Your task to perform on an android device: open app "Microsoft Authenticator" (install if not already installed), go to login, and select forgot password Image 0: 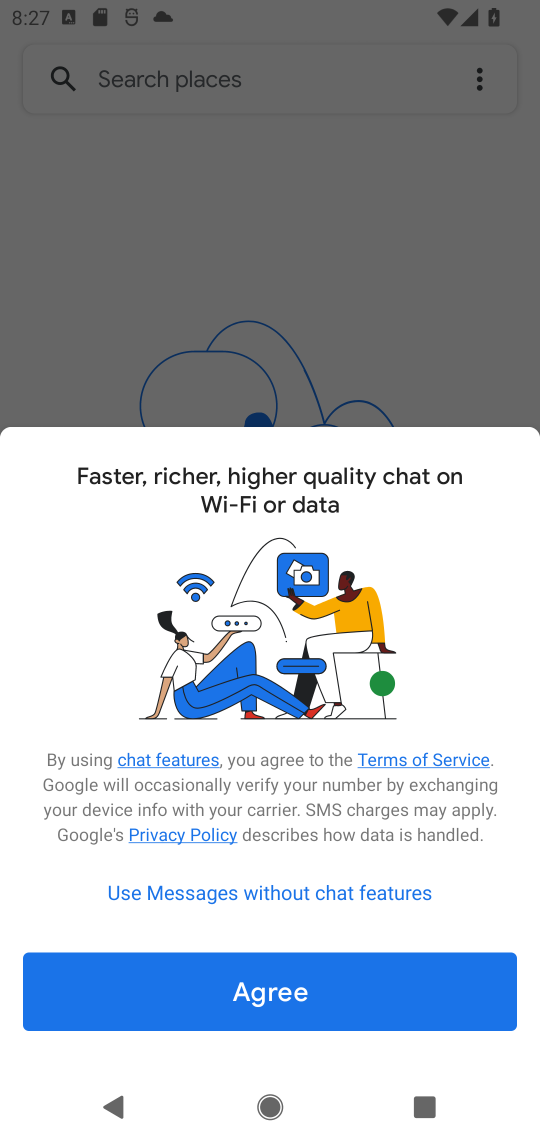
Step 0: press home button
Your task to perform on an android device: open app "Microsoft Authenticator" (install if not already installed), go to login, and select forgot password Image 1: 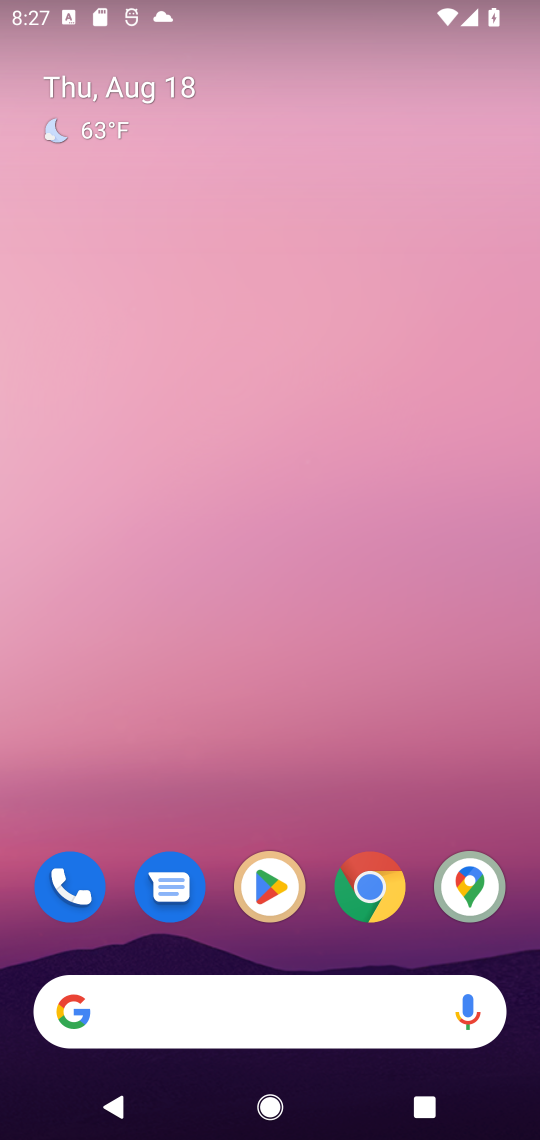
Step 1: click (265, 898)
Your task to perform on an android device: open app "Microsoft Authenticator" (install if not already installed), go to login, and select forgot password Image 2: 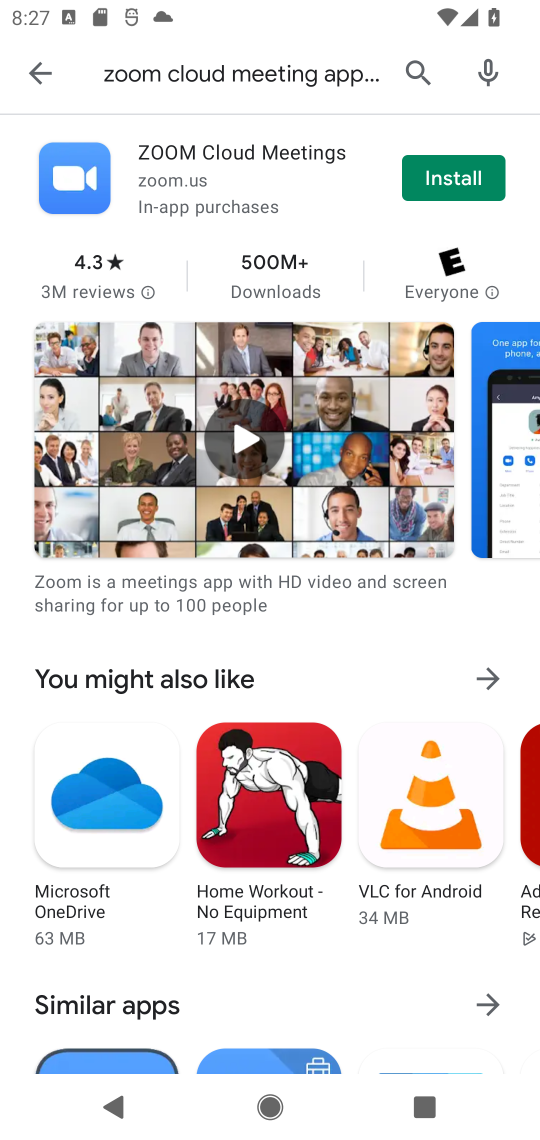
Step 2: click (413, 74)
Your task to perform on an android device: open app "Microsoft Authenticator" (install if not already installed), go to login, and select forgot password Image 3: 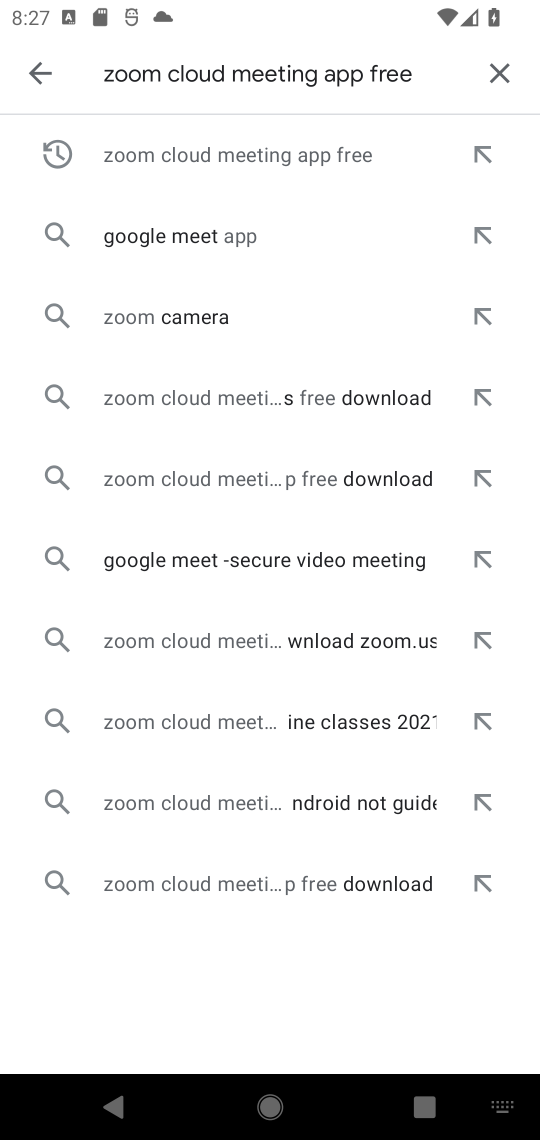
Step 3: click (508, 67)
Your task to perform on an android device: open app "Microsoft Authenticator" (install if not already installed), go to login, and select forgot password Image 4: 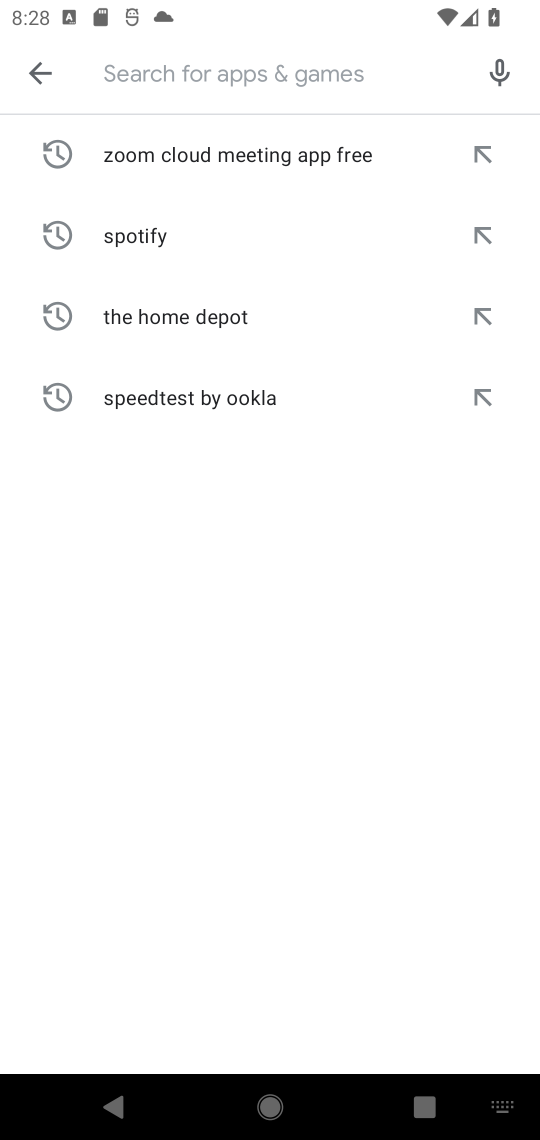
Step 4: type "Microsoft Authenticator"
Your task to perform on an android device: open app "Microsoft Authenticator" (install if not already installed), go to login, and select forgot password Image 5: 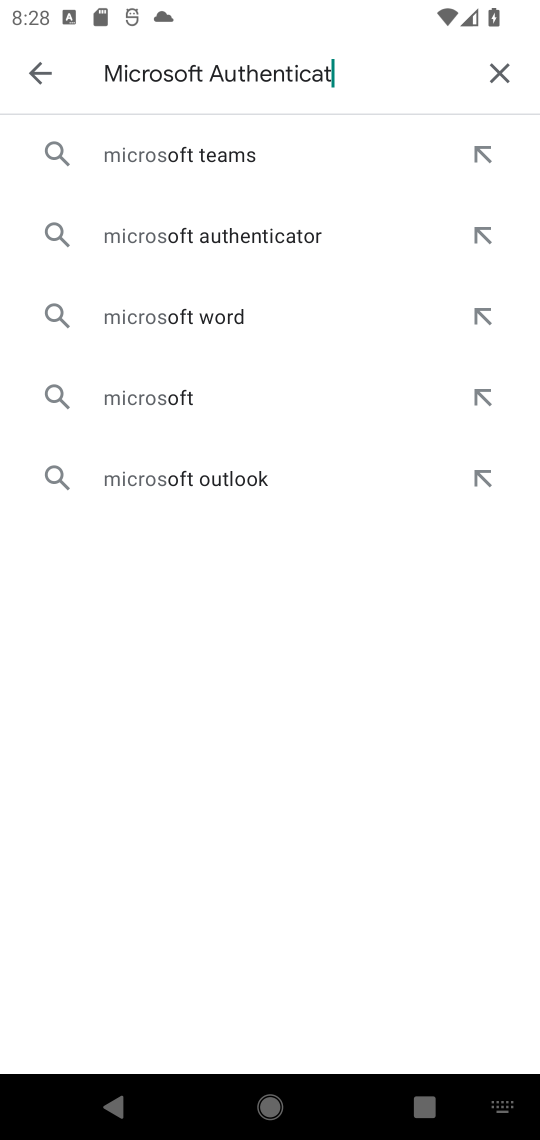
Step 5: type ""
Your task to perform on an android device: open app "Microsoft Authenticator" (install if not already installed), go to login, and select forgot password Image 6: 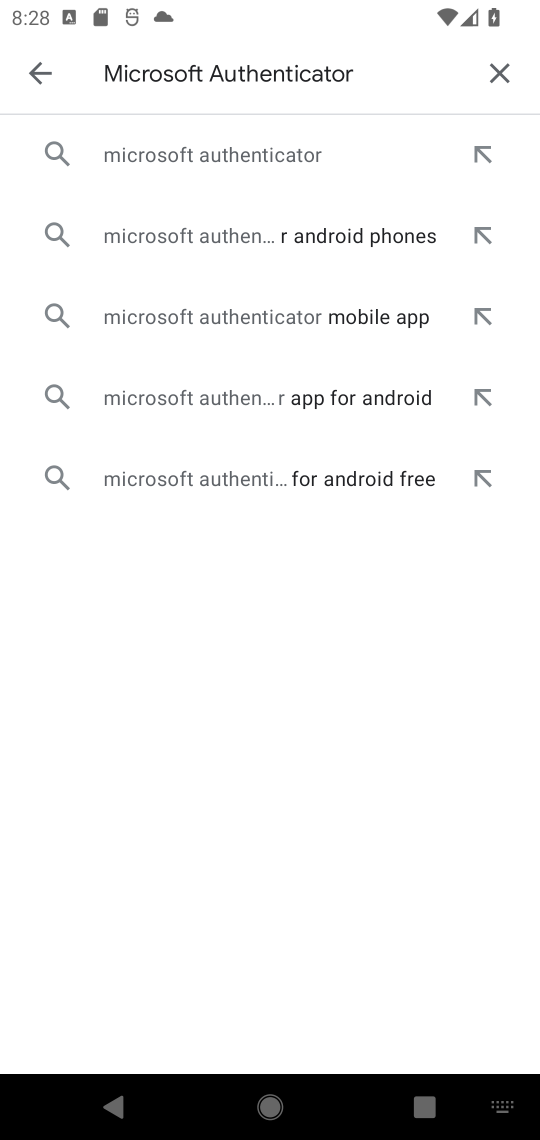
Step 6: click (277, 155)
Your task to perform on an android device: open app "Microsoft Authenticator" (install if not already installed), go to login, and select forgot password Image 7: 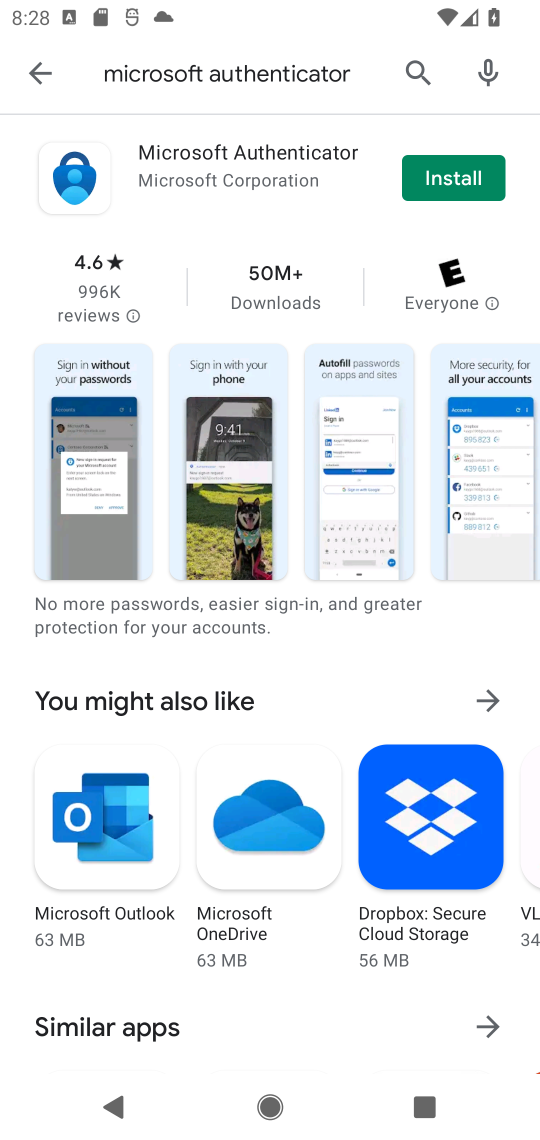
Step 7: click (474, 172)
Your task to perform on an android device: open app "Microsoft Authenticator" (install if not already installed), go to login, and select forgot password Image 8: 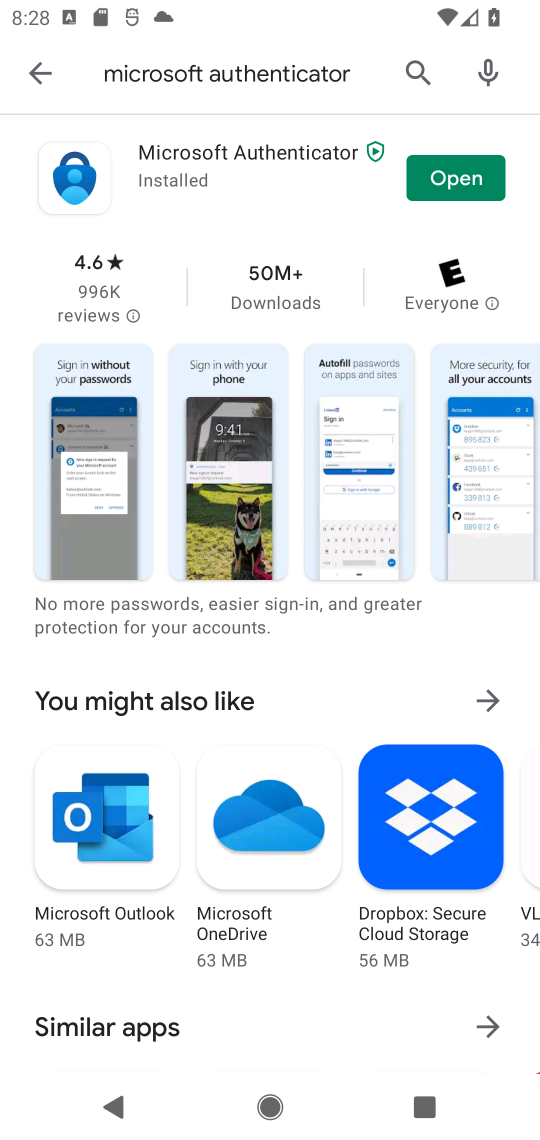
Step 8: click (459, 184)
Your task to perform on an android device: open app "Microsoft Authenticator" (install if not already installed), go to login, and select forgot password Image 9: 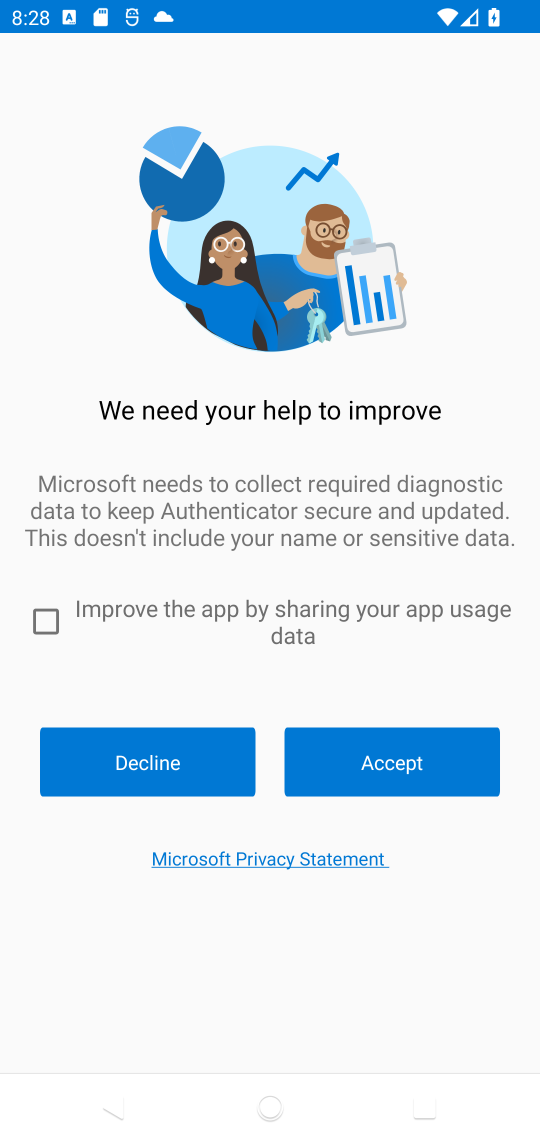
Step 9: task complete